Your task to perform on an android device: open app "Google Keep" Image 0: 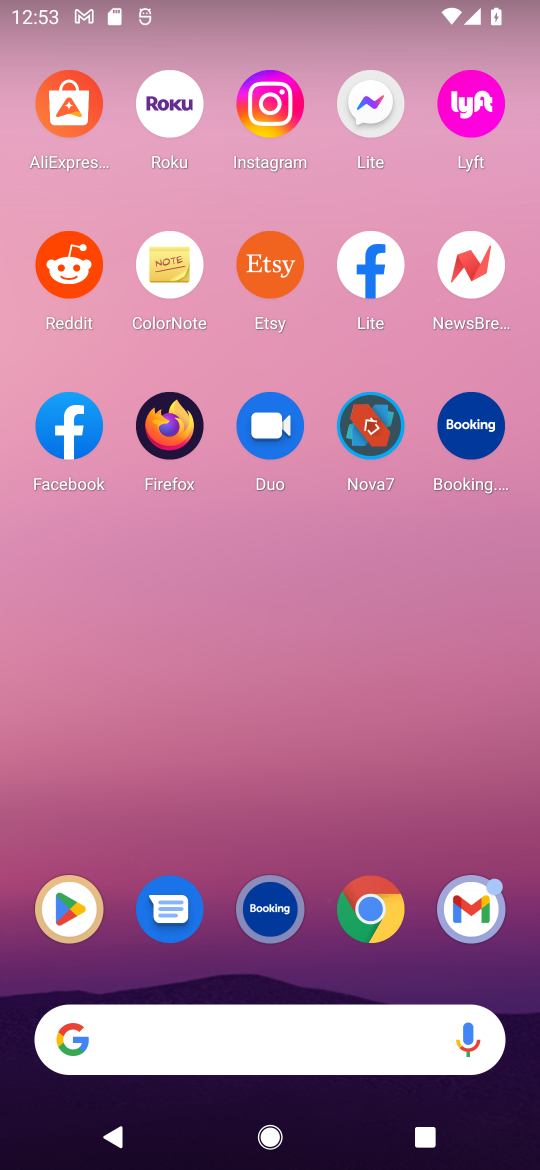
Step 0: click (71, 905)
Your task to perform on an android device: open app "Google Keep" Image 1: 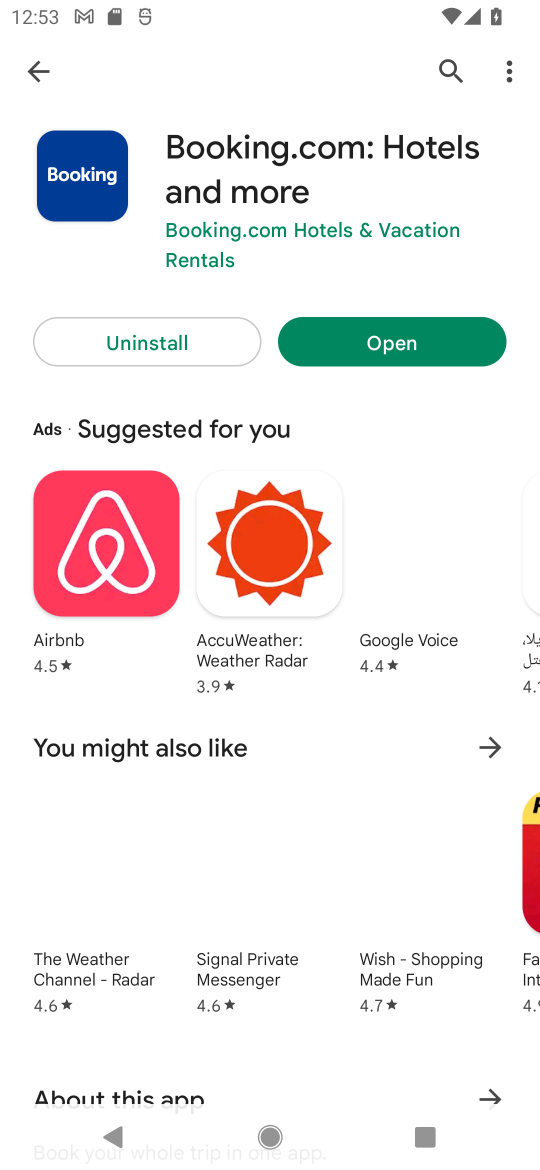
Step 1: click (452, 57)
Your task to perform on an android device: open app "Google Keep" Image 2: 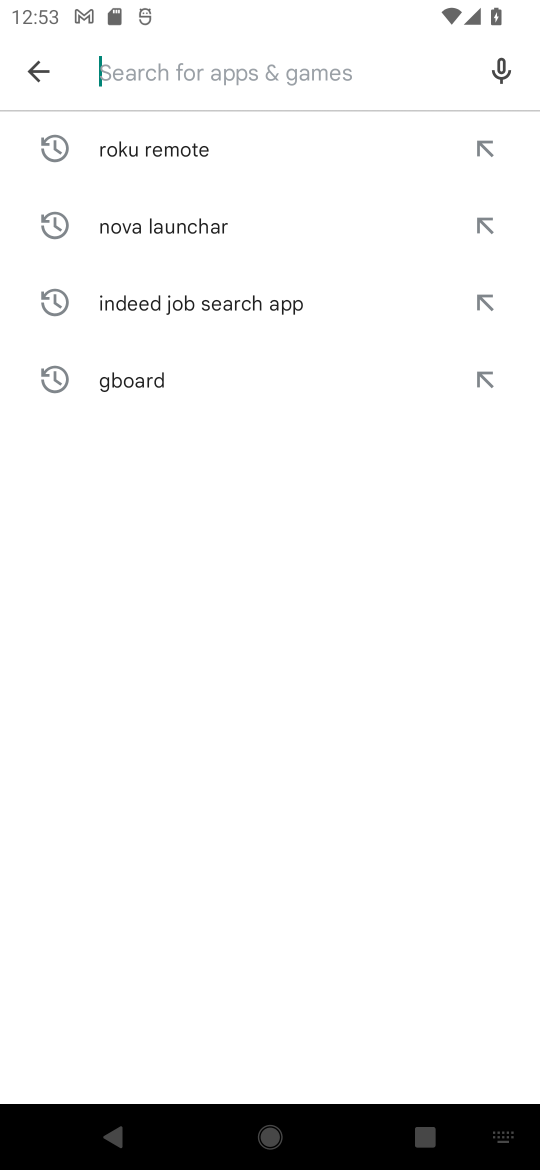
Step 2: type "Google Keep""
Your task to perform on an android device: open app "Google Keep" Image 3: 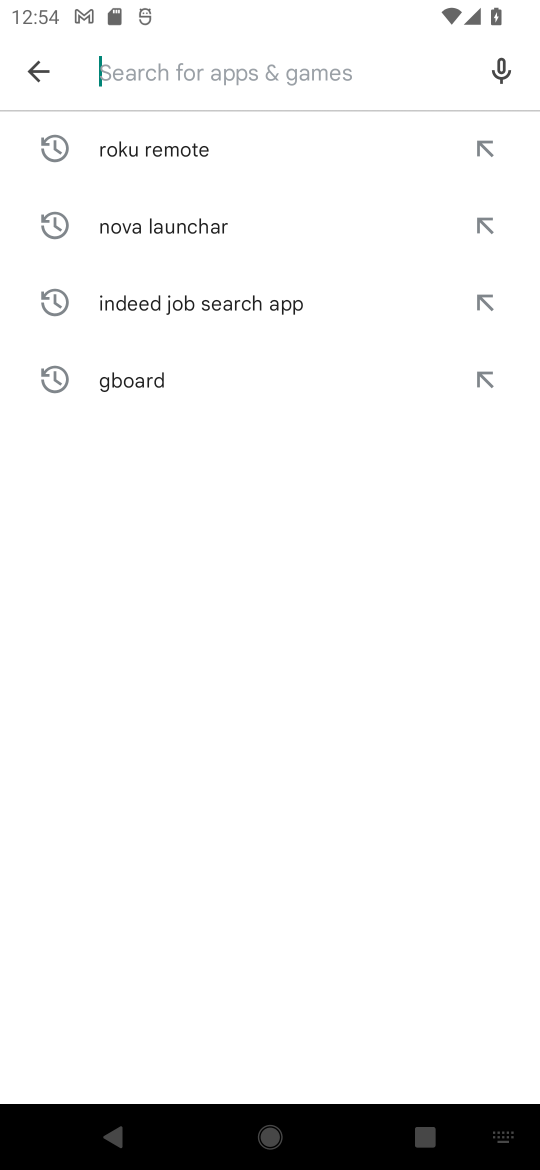
Step 3: type "Google keep"
Your task to perform on an android device: open app "Google Keep" Image 4: 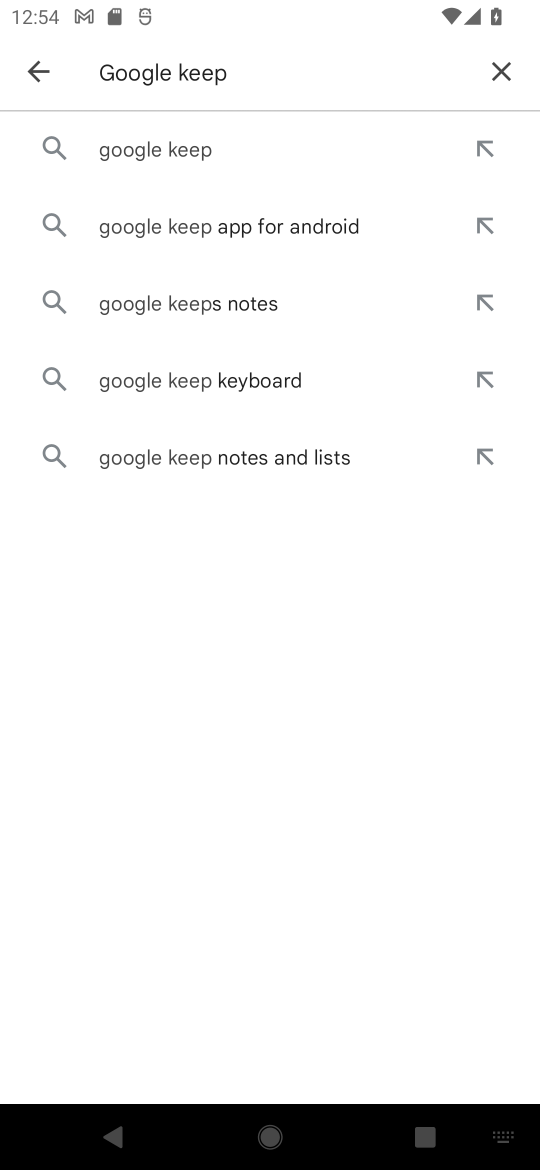
Step 4: click (125, 145)
Your task to perform on an android device: open app "Google Keep" Image 5: 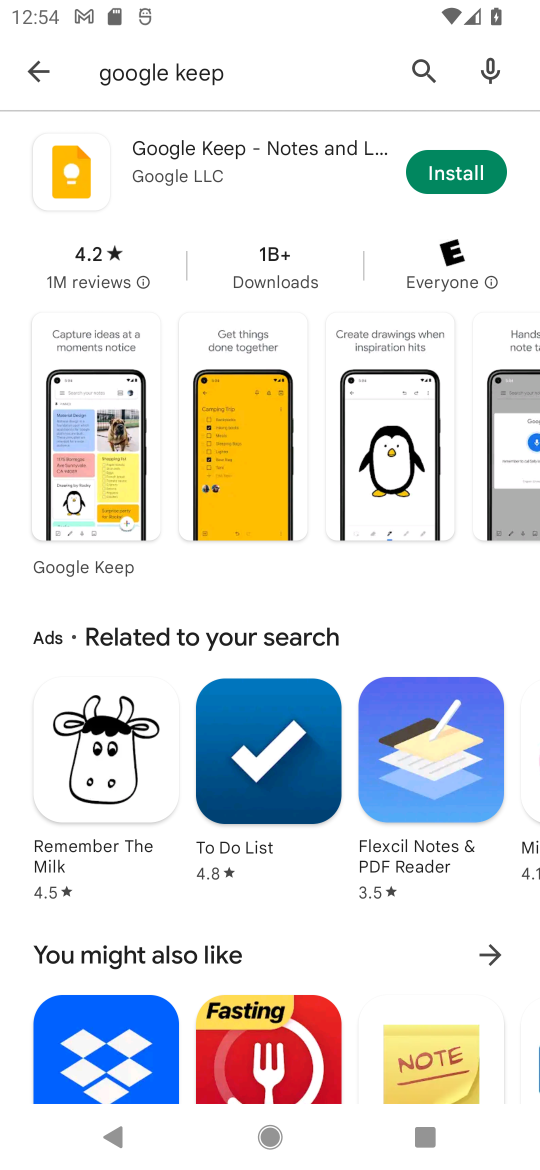
Step 5: task complete